Your task to perform on an android device: delete a single message in the gmail app Image 0: 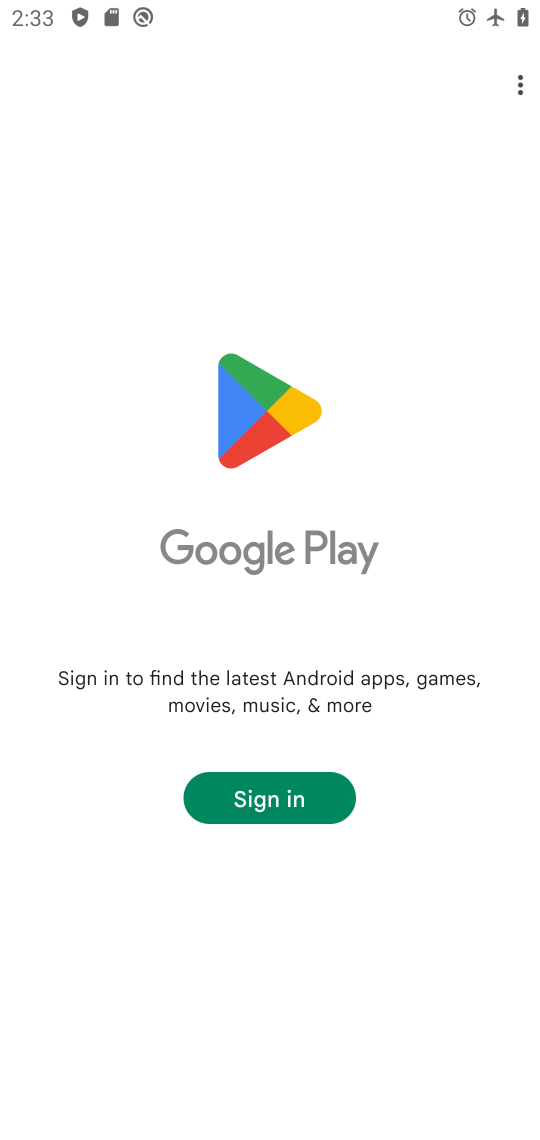
Step 0: press home button
Your task to perform on an android device: delete a single message in the gmail app Image 1: 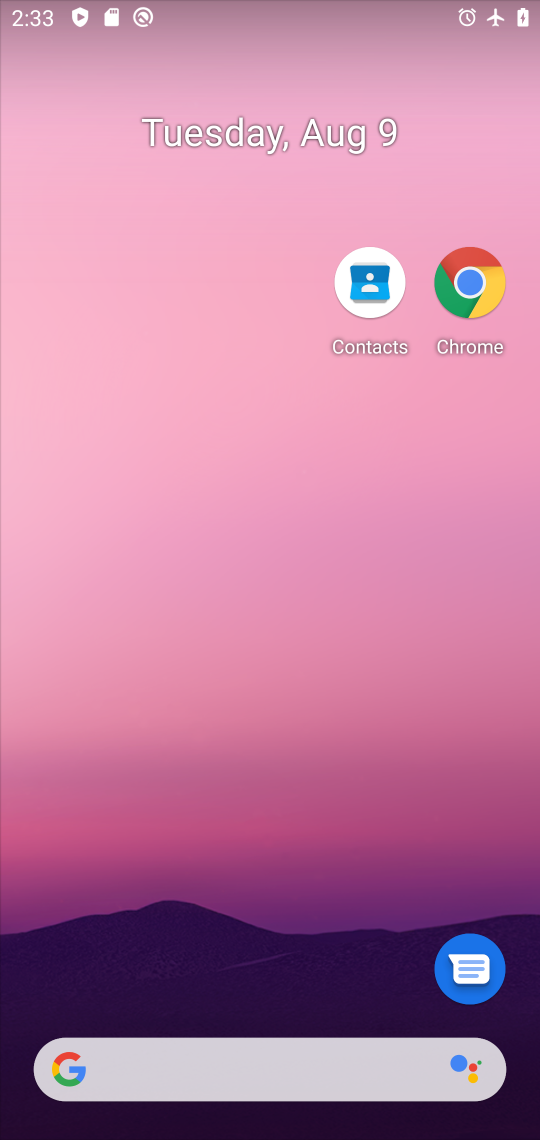
Step 1: drag from (332, 953) to (349, 12)
Your task to perform on an android device: delete a single message in the gmail app Image 2: 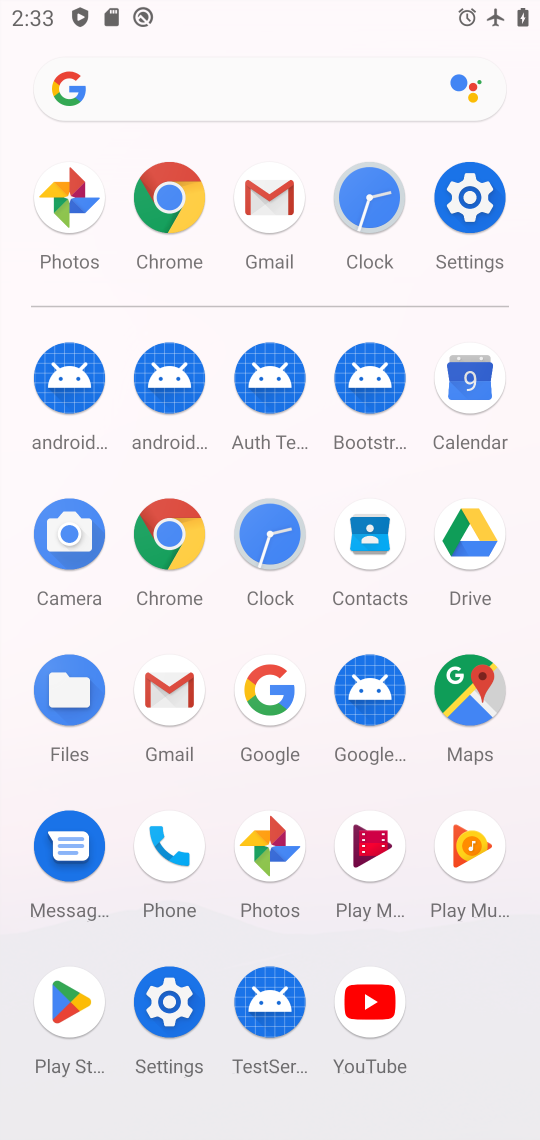
Step 2: click (171, 690)
Your task to perform on an android device: delete a single message in the gmail app Image 3: 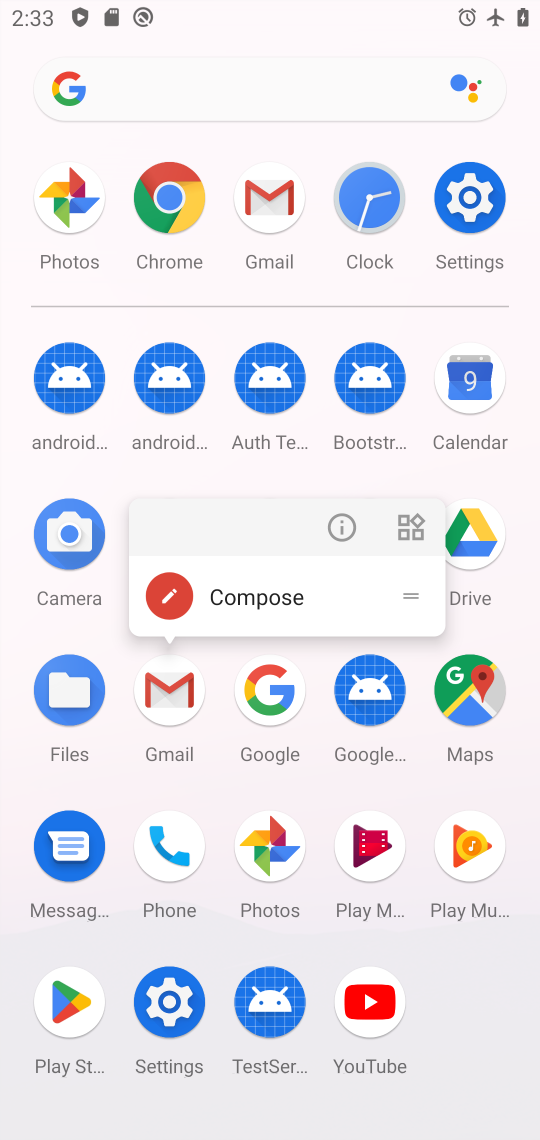
Step 3: click (348, 529)
Your task to perform on an android device: delete a single message in the gmail app Image 4: 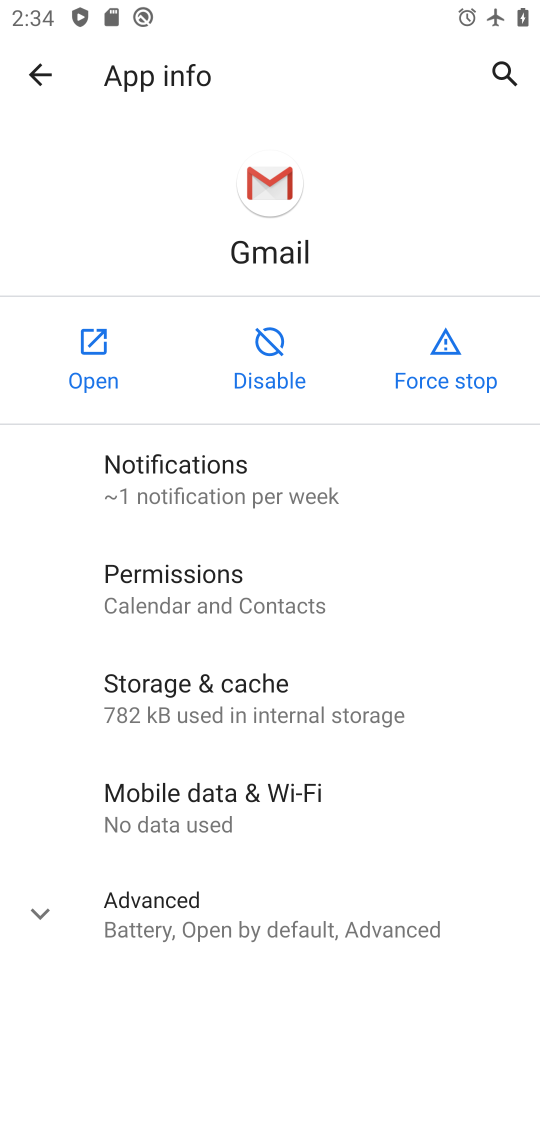
Step 4: click (85, 353)
Your task to perform on an android device: delete a single message in the gmail app Image 5: 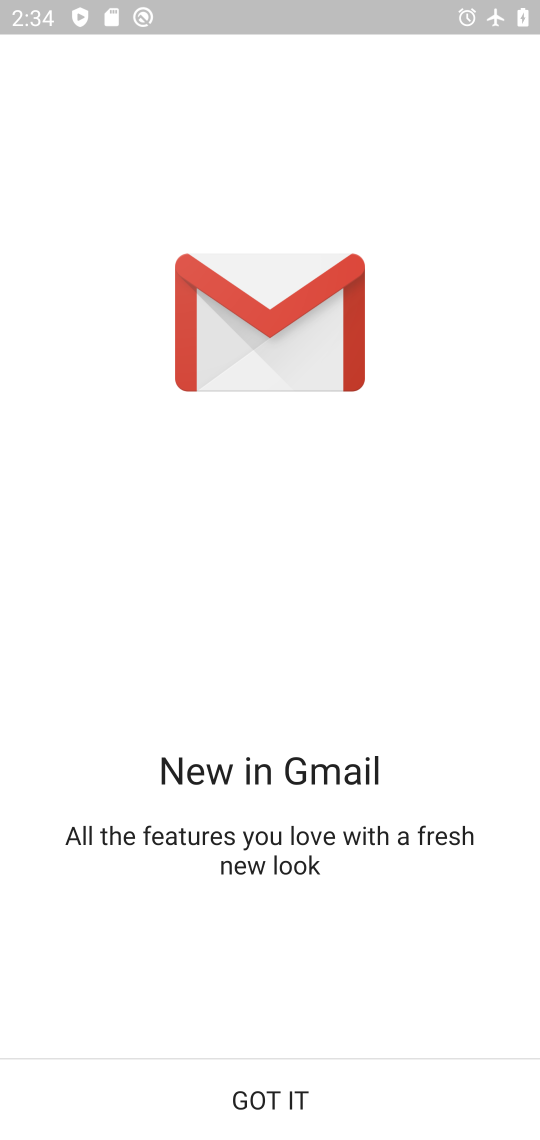
Step 5: click (284, 1093)
Your task to perform on an android device: delete a single message in the gmail app Image 6: 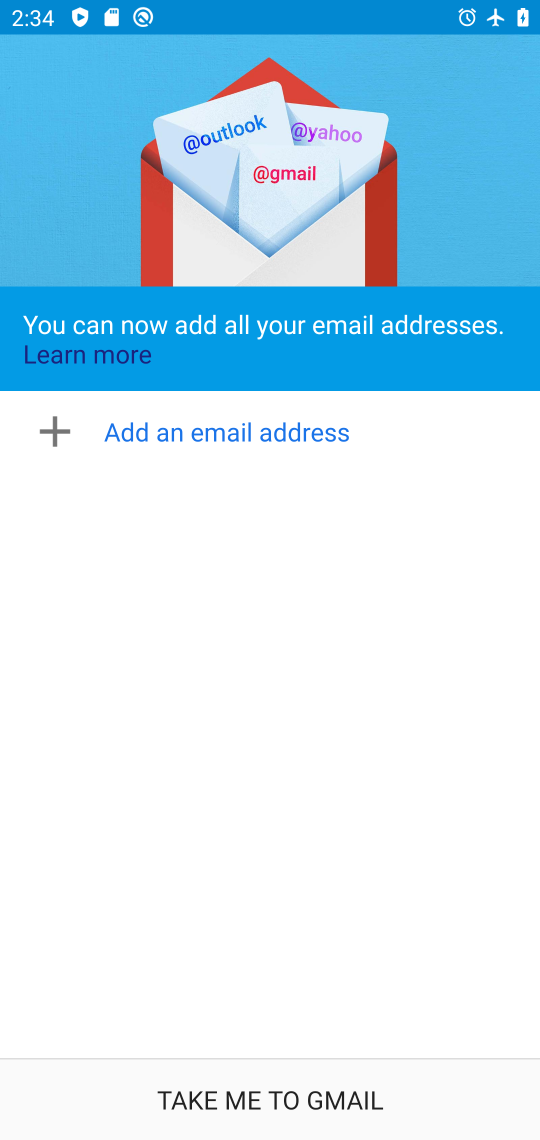
Step 6: task complete